Your task to perform on an android device: Open Google Chrome Image 0: 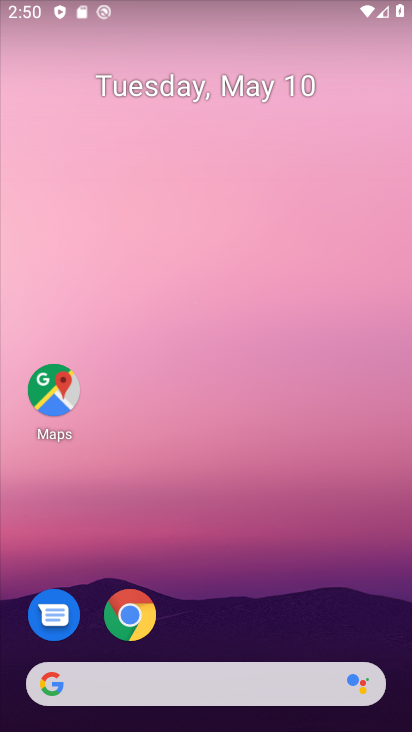
Step 0: click (132, 616)
Your task to perform on an android device: Open Google Chrome Image 1: 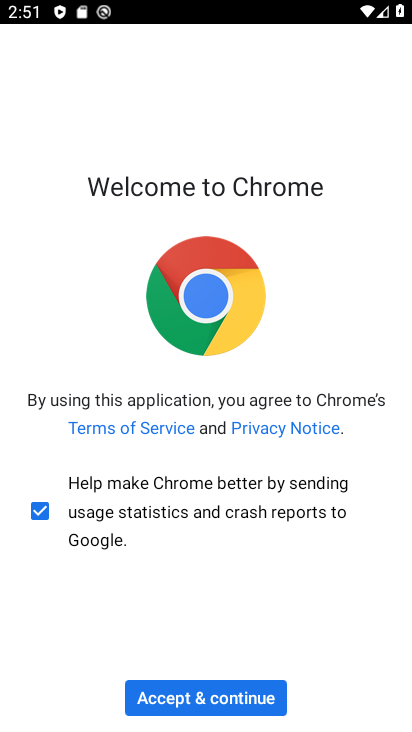
Step 1: click (161, 697)
Your task to perform on an android device: Open Google Chrome Image 2: 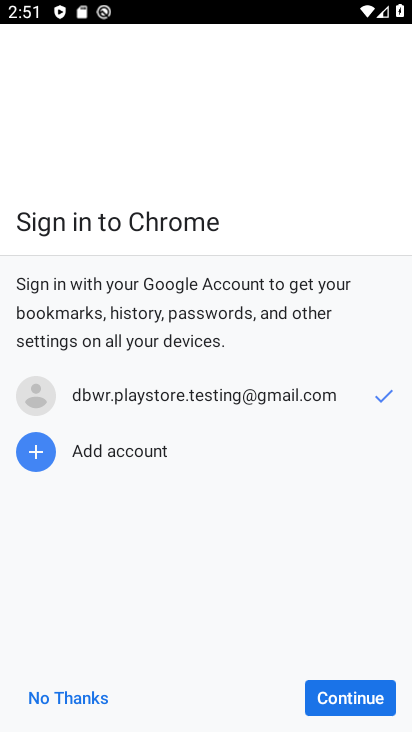
Step 2: click (352, 697)
Your task to perform on an android device: Open Google Chrome Image 3: 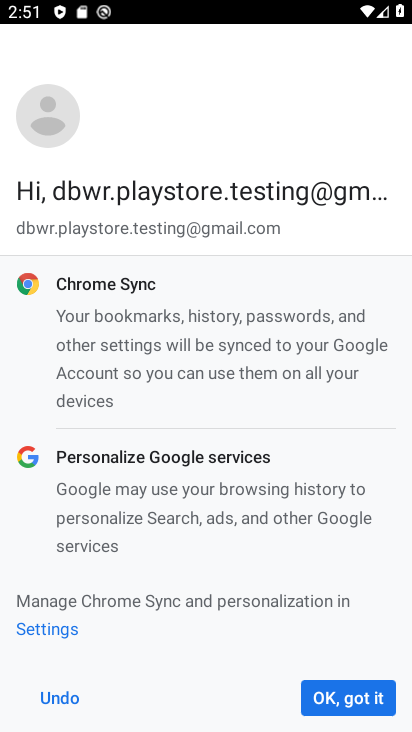
Step 3: click (352, 697)
Your task to perform on an android device: Open Google Chrome Image 4: 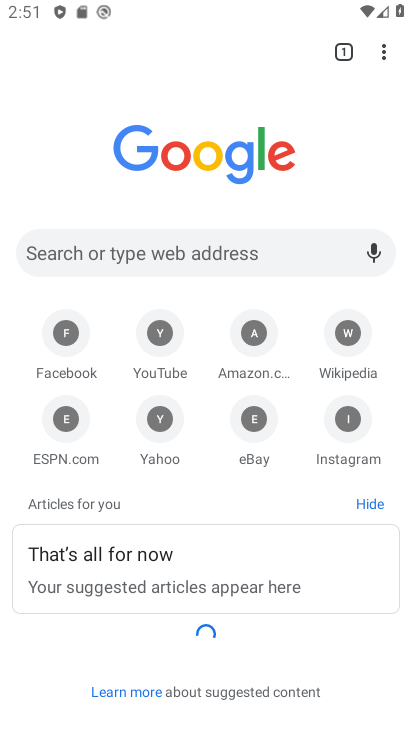
Step 4: task complete